Your task to perform on an android device: Empty the shopping cart on amazon.com. Add "jbl flip 4" to the cart on amazon.com Image 0: 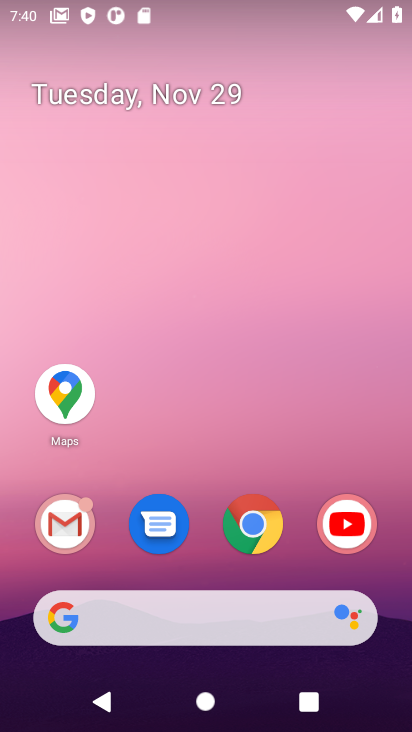
Step 0: click (257, 522)
Your task to perform on an android device: Empty the shopping cart on amazon.com. Add "jbl flip 4" to the cart on amazon.com Image 1: 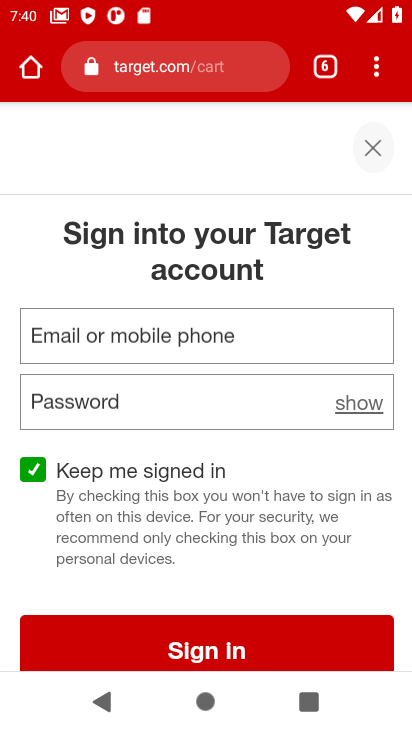
Step 1: click (168, 55)
Your task to perform on an android device: Empty the shopping cart on amazon.com. Add "jbl flip 4" to the cart on amazon.com Image 2: 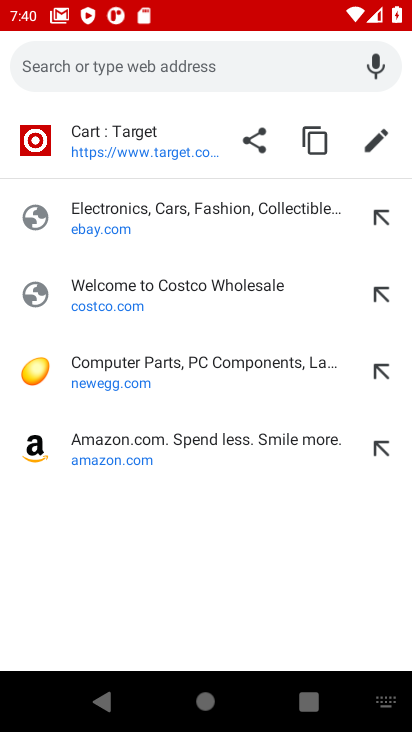
Step 2: click (122, 450)
Your task to perform on an android device: Empty the shopping cart on amazon.com. Add "jbl flip 4" to the cart on amazon.com Image 3: 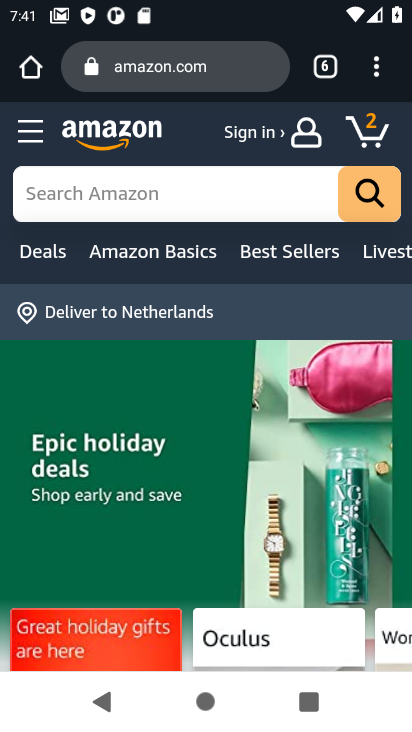
Step 3: click (368, 129)
Your task to perform on an android device: Empty the shopping cart on amazon.com. Add "jbl flip 4" to the cart on amazon.com Image 4: 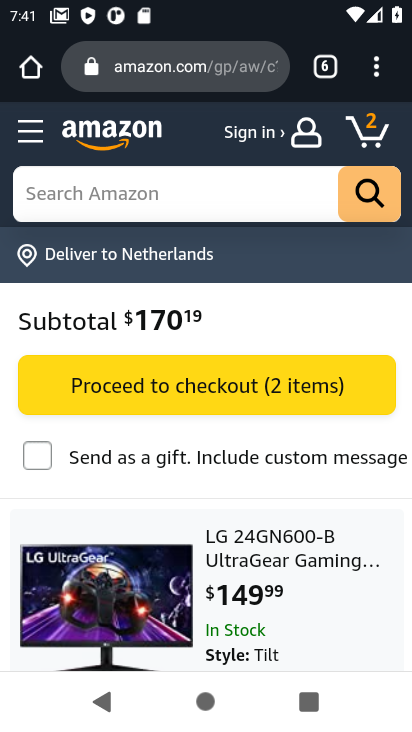
Step 4: drag from (373, 585) to (354, 326)
Your task to perform on an android device: Empty the shopping cart on amazon.com. Add "jbl flip 4" to the cart on amazon.com Image 5: 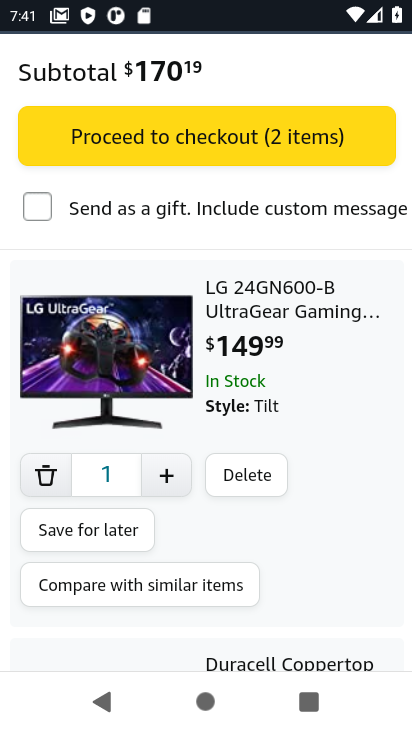
Step 5: click (51, 479)
Your task to perform on an android device: Empty the shopping cart on amazon.com. Add "jbl flip 4" to the cart on amazon.com Image 6: 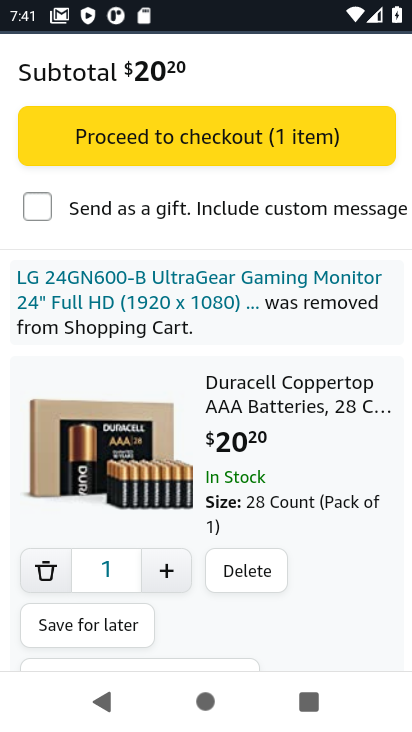
Step 6: click (46, 576)
Your task to perform on an android device: Empty the shopping cart on amazon.com. Add "jbl flip 4" to the cart on amazon.com Image 7: 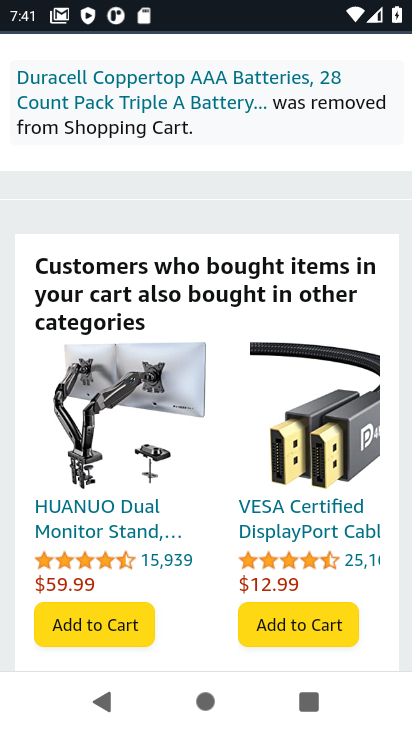
Step 7: drag from (195, 228) to (212, 446)
Your task to perform on an android device: Empty the shopping cart on amazon.com. Add "jbl flip 4" to the cart on amazon.com Image 8: 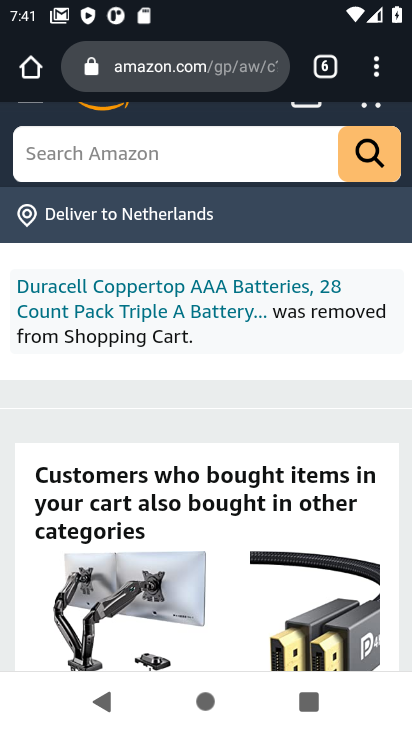
Step 8: click (47, 158)
Your task to perform on an android device: Empty the shopping cart on amazon.com. Add "jbl flip 4" to the cart on amazon.com Image 9: 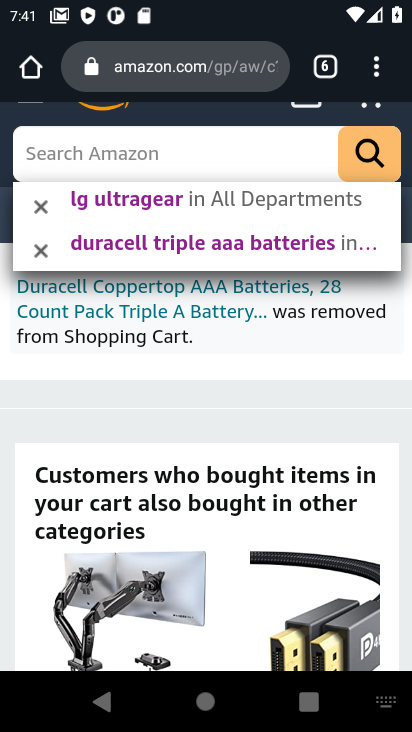
Step 9: type "jbl flip 4"
Your task to perform on an android device: Empty the shopping cart on amazon.com. Add "jbl flip 4" to the cart on amazon.com Image 10: 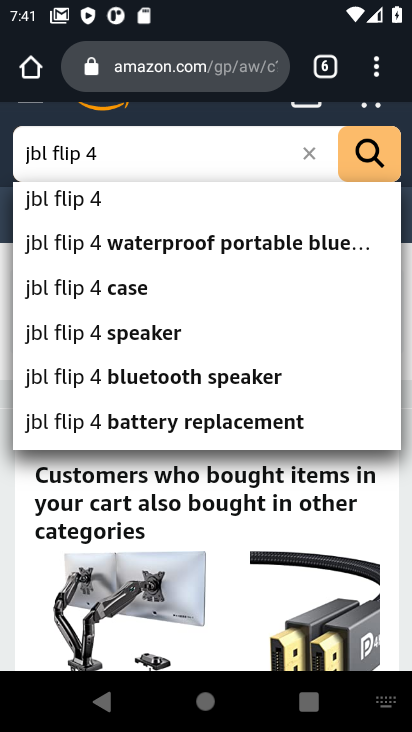
Step 10: click (39, 202)
Your task to perform on an android device: Empty the shopping cart on amazon.com. Add "jbl flip 4" to the cart on amazon.com Image 11: 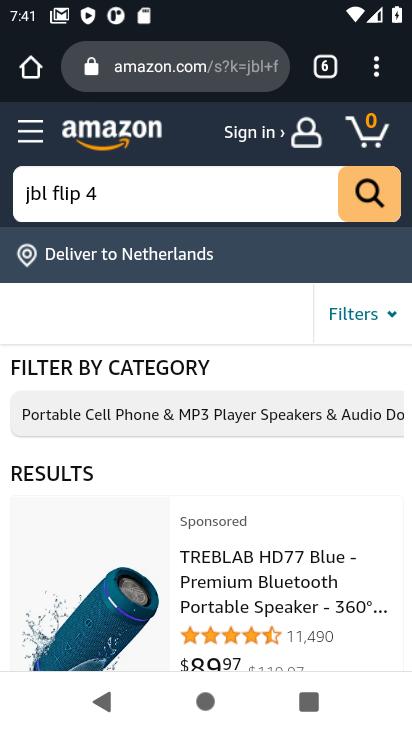
Step 11: drag from (207, 481) to (197, 262)
Your task to perform on an android device: Empty the shopping cart on amazon.com. Add "jbl flip 4" to the cart on amazon.com Image 12: 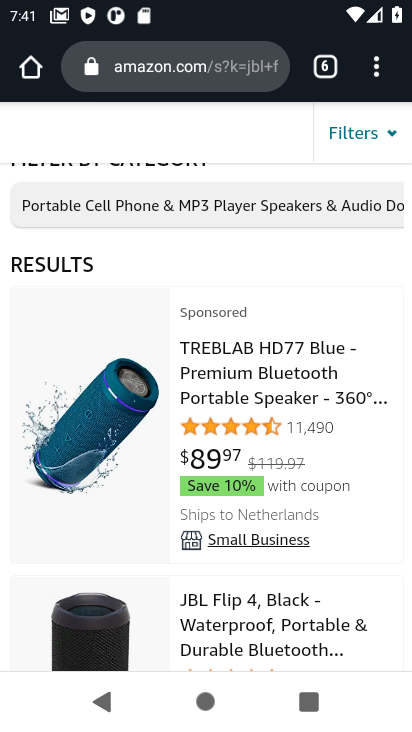
Step 12: drag from (194, 510) to (197, 305)
Your task to perform on an android device: Empty the shopping cart on amazon.com. Add "jbl flip 4" to the cart on amazon.com Image 13: 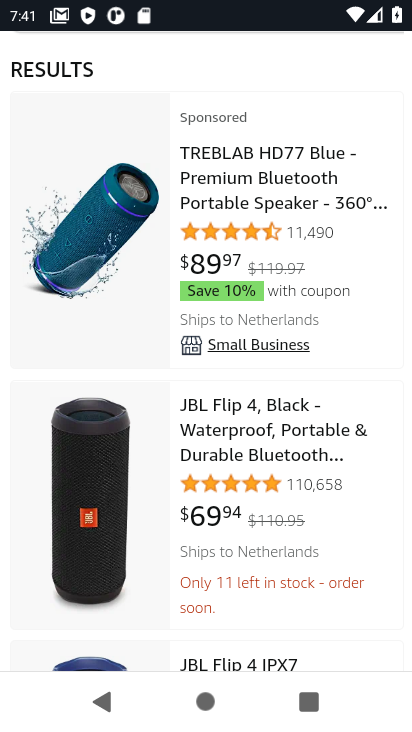
Step 13: click (202, 452)
Your task to perform on an android device: Empty the shopping cart on amazon.com. Add "jbl flip 4" to the cart on amazon.com Image 14: 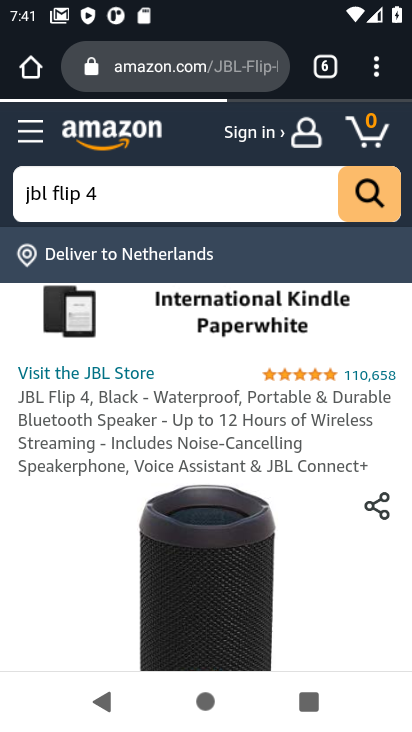
Step 14: drag from (199, 516) to (186, 196)
Your task to perform on an android device: Empty the shopping cart on amazon.com. Add "jbl flip 4" to the cart on amazon.com Image 15: 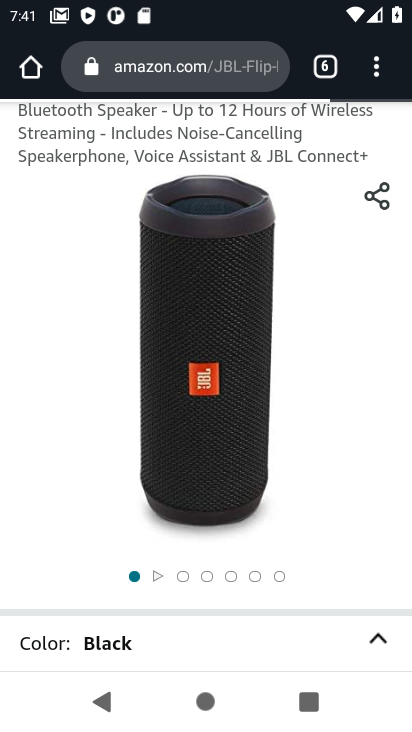
Step 15: drag from (149, 442) to (127, 180)
Your task to perform on an android device: Empty the shopping cart on amazon.com. Add "jbl flip 4" to the cart on amazon.com Image 16: 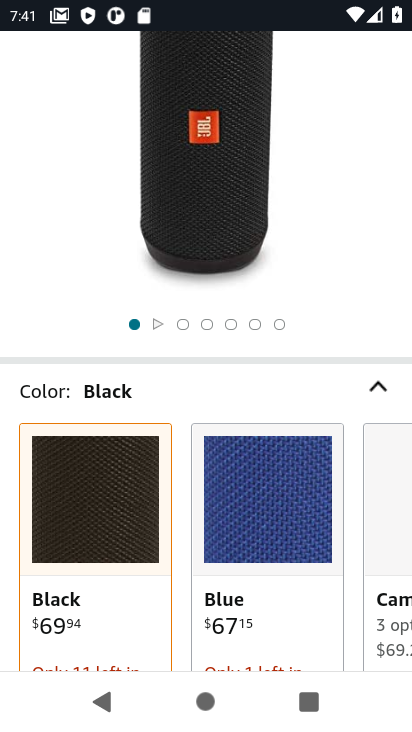
Step 16: drag from (166, 537) to (153, 140)
Your task to perform on an android device: Empty the shopping cart on amazon.com. Add "jbl flip 4" to the cart on amazon.com Image 17: 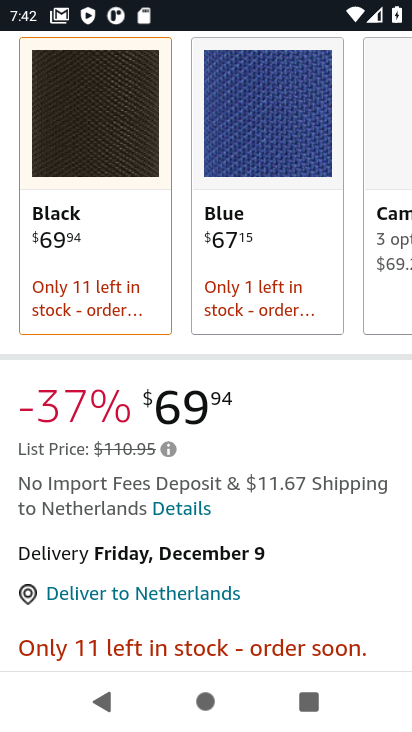
Step 17: drag from (129, 424) to (119, 161)
Your task to perform on an android device: Empty the shopping cart on amazon.com. Add "jbl flip 4" to the cart on amazon.com Image 18: 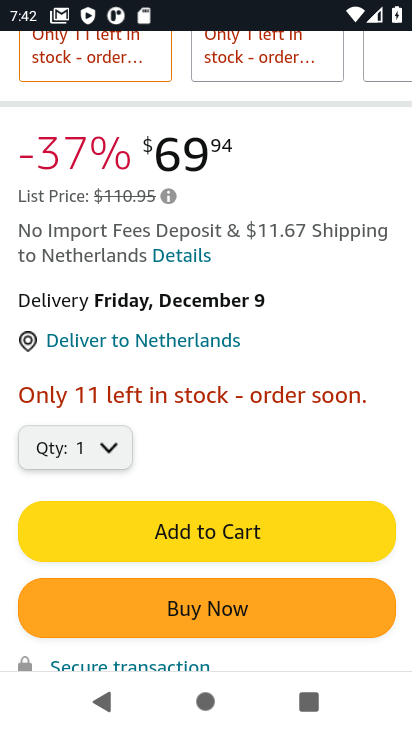
Step 18: click (172, 513)
Your task to perform on an android device: Empty the shopping cart on amazon.com. Add "jbl flip 4" to the cart on amazon.com Image 19: 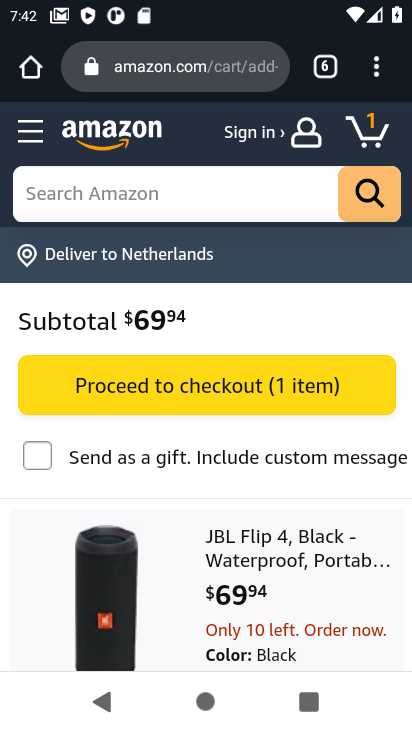
Step 19: task complete